Your task to perform on an android device: read, delete, or share a saved page in the chrome app Image 0: 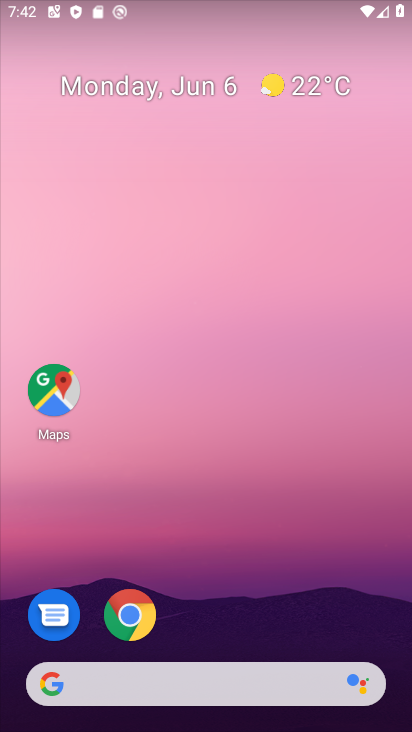
Step 0: click (134, 622)
Your task to perform on an android device: read, delete, or share a saved page in the chrome app Image 1: 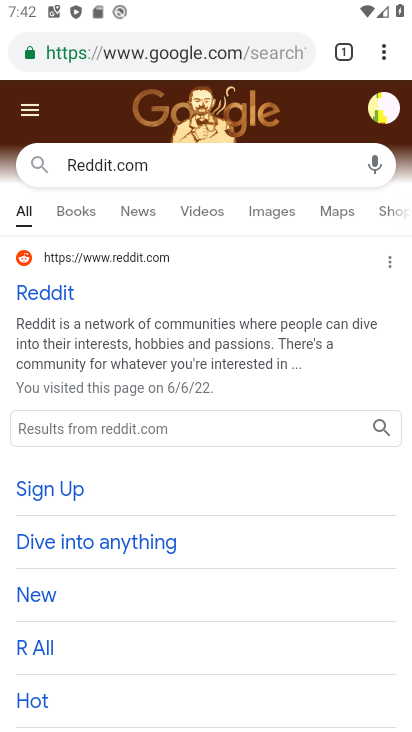
Step 1: click (382, 48)
Your task to perform on an android device: read, delete, or share a saved page in the chrome app Image 2: 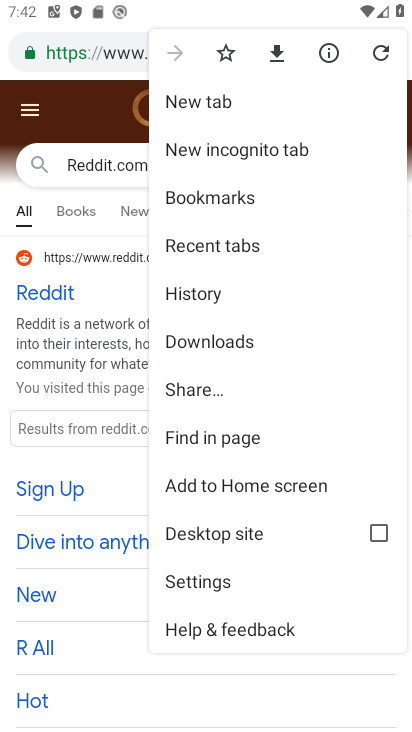
Step 2: click (200, 340)
Your task to perform on an android device: read, delete, or share a saved page in the chrome app Image 3: 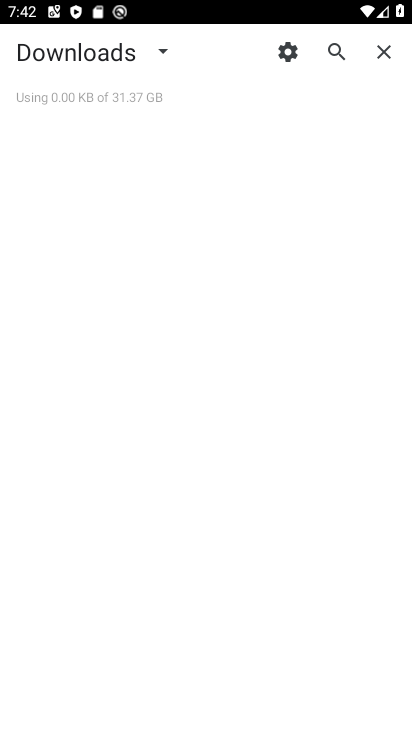
Step 3: task complete